Your task to perform on an android device: Play the last video I watched on Youtube Image 0: 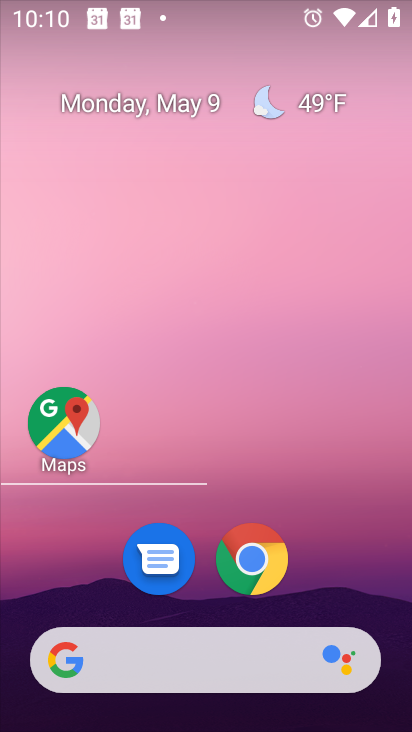
Step 0: click (214, 201)
Your task to perform on an android device: Play the last video I watched on Youtube Image 1: 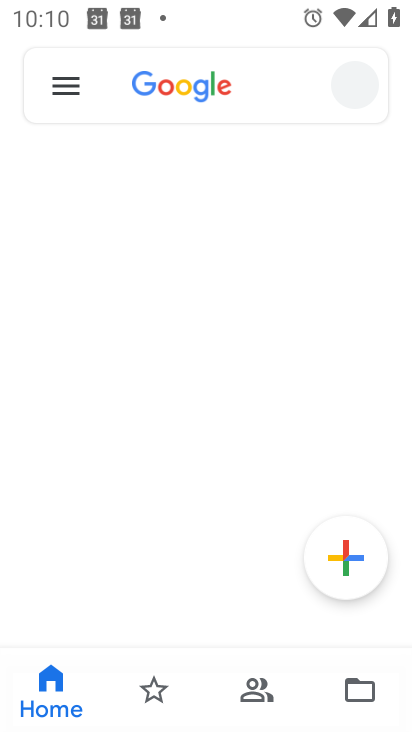
Step 1: press home button
Your task to perform on an android device: Play the last video I watched on Youtube Image 2: 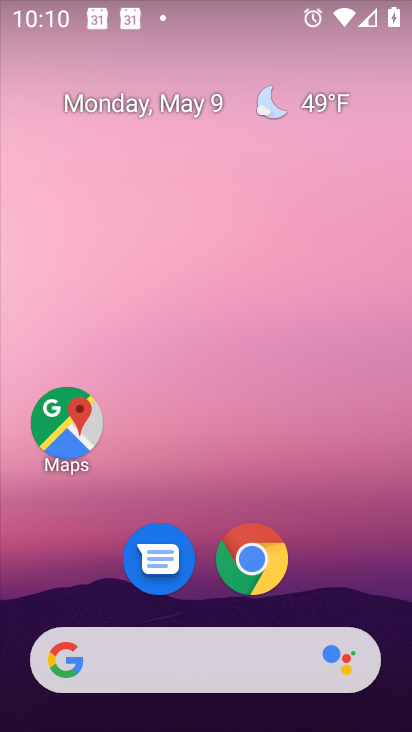
Step 2: drag from (200, 728) to (200, 208)
Your task to perform on an android device: Play the last video I watched on Youtube Image 3: 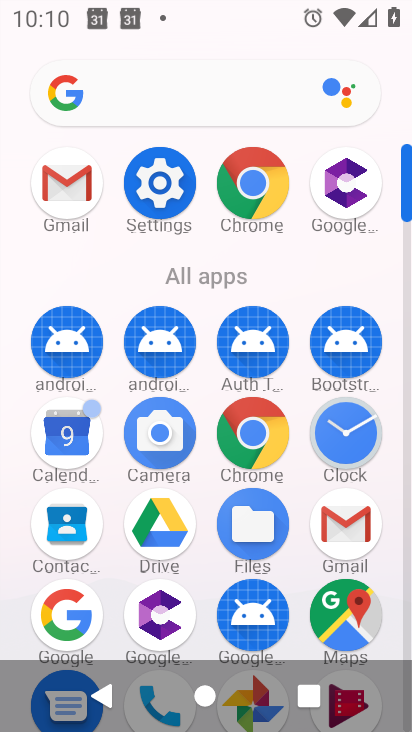
Step 3: drag from (302, 611) to (289, 210)
Your task to perform on an android device: Play the last video I watched on Youtube Image 4: 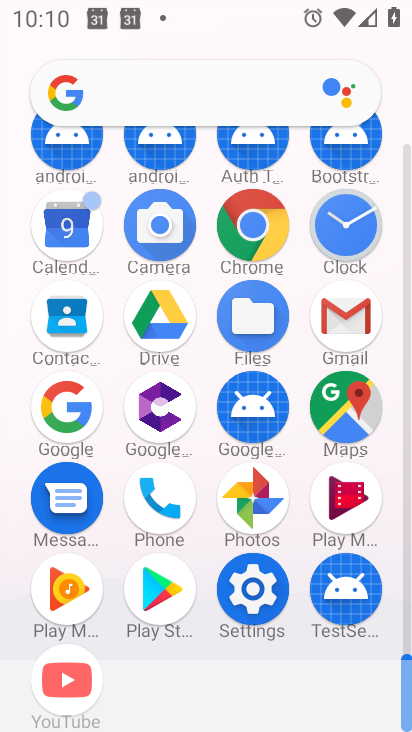
Step 4: click (65, 653)
Your task to perform on an android device: Play the last video I watched on Youtube Image 5: 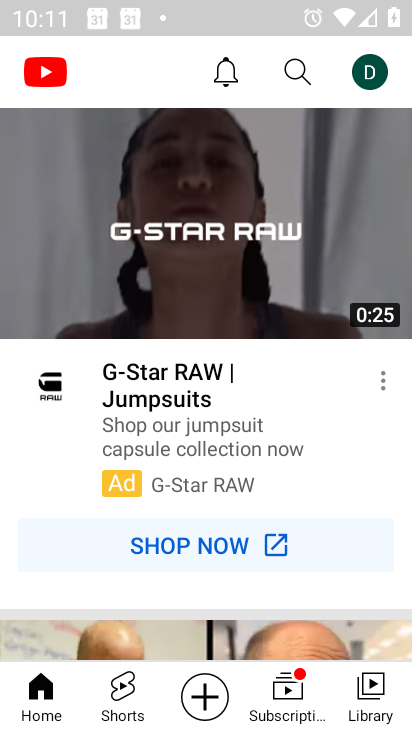
Step 5: click (366, 682)
Your task to perform on an android device: Play the last video I watched on Youtube Image 6: 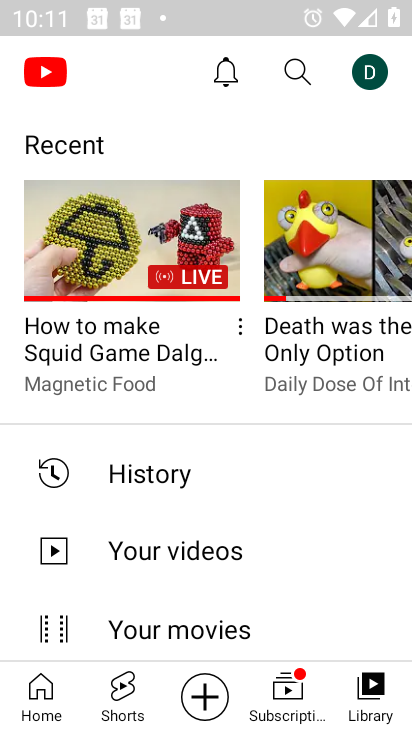
Step 6: click (123, 241)
Your task to perform on an android device: Play the last video I watched on Youtube Image 7: 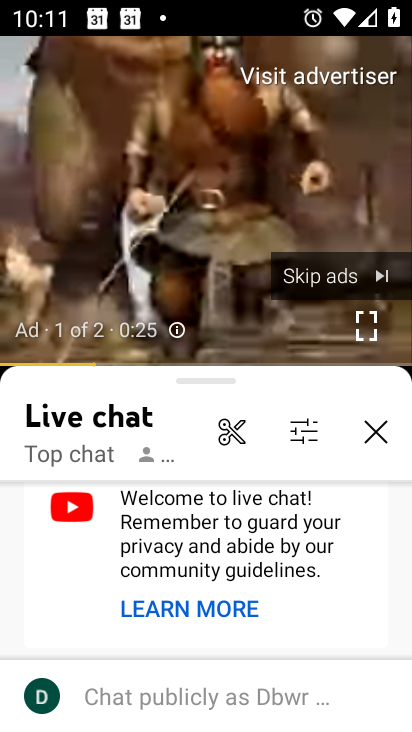
Step 7: click (335, 274)
Your task to perform on an android device: Play the last video I watched on Youtube Image 8: 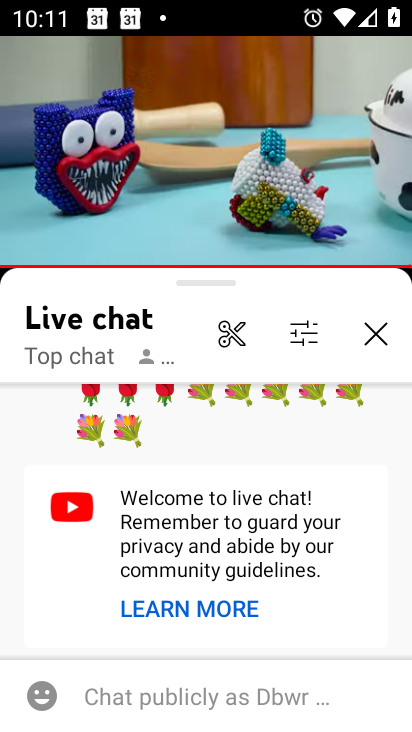
Step 8: task complete